Your task to perform on an android device: When is my next appointment? Image 0: 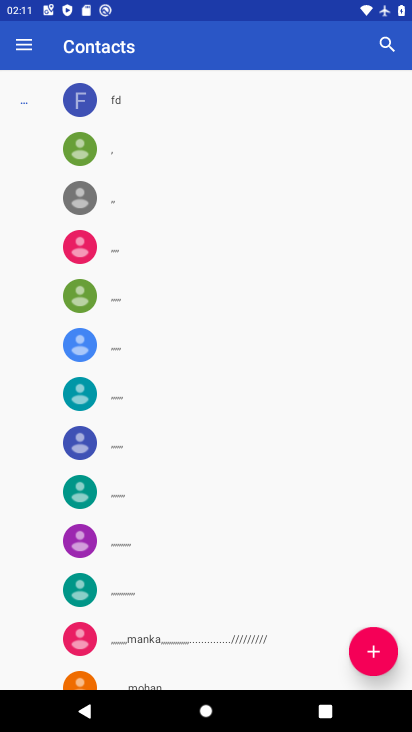
Step 0: press home button
Your task to perform on an android device: When is my next appointment? Image 1: 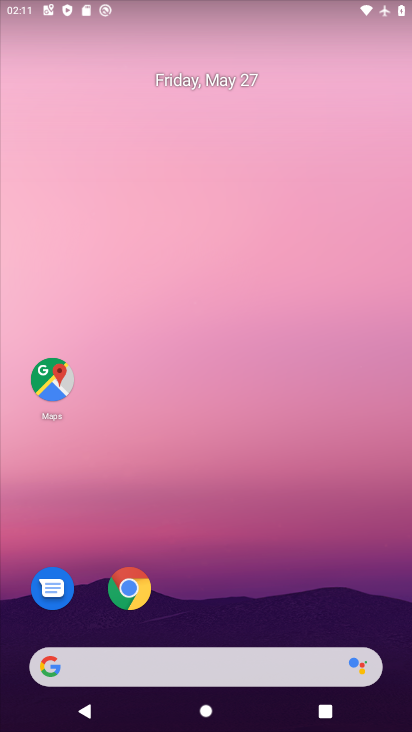
Step 1: drag from (371, 618) to (335, 76)
Your task to perform on an android device: When is my next appointment? Image 2: 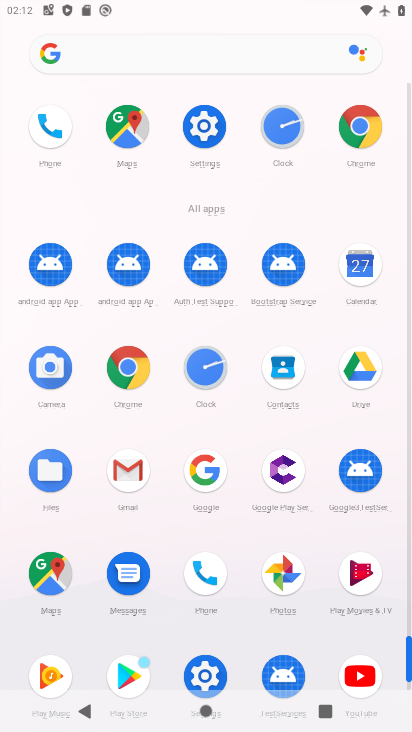
Step 2: click (364, 261)
Your task to perform on an android device: When is my next appointment? Image 3: 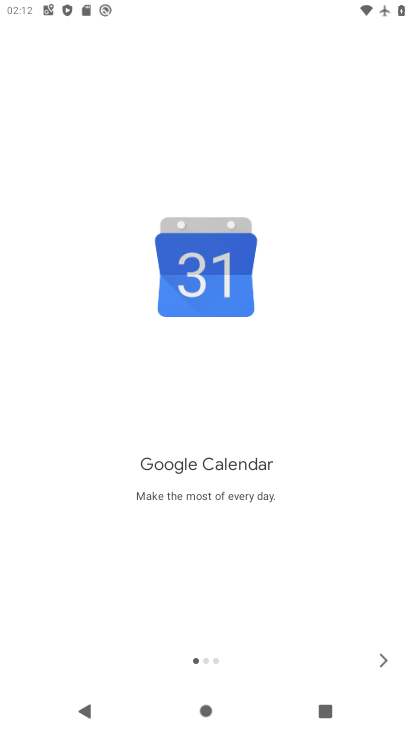
Step 3: click (381, 653)
Your task to perform on an android device: When is my next appointment? Image 4: 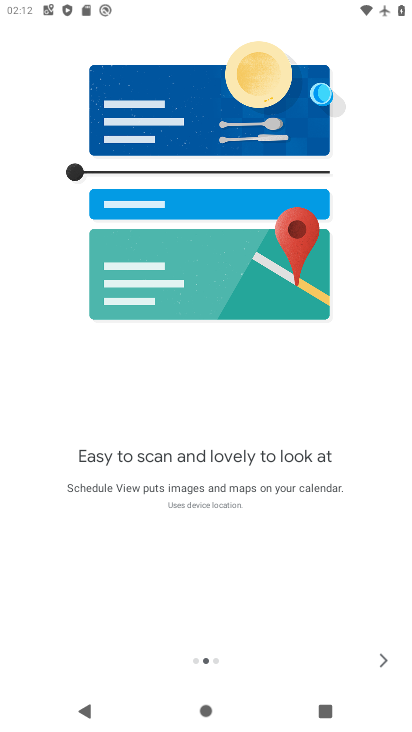
Step 4: click (381, 653)
Your task to perform on an android device: When is my next appointment? Image 5: 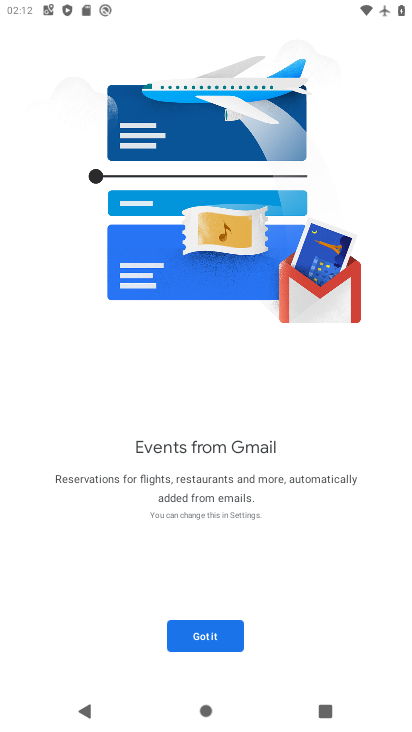
Step 5: click (203, 638)
Your task to perform on an android device: When is my next appointment? Image 6: 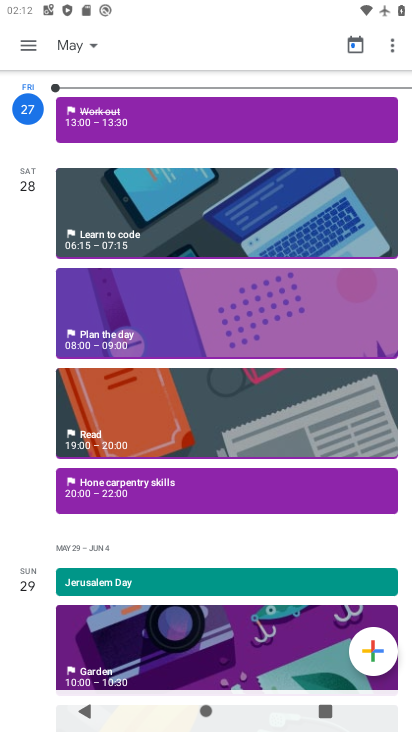
Step 6: click (203, 638)
Your task to perform on an android device: When is my next appointment? Image 7: 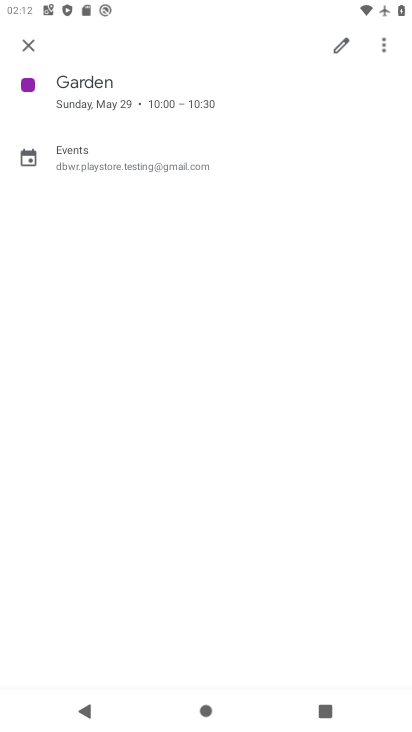
Step 7: click (21, 45)
Your task to perform on an android device: When is my next appointment? Image 8: 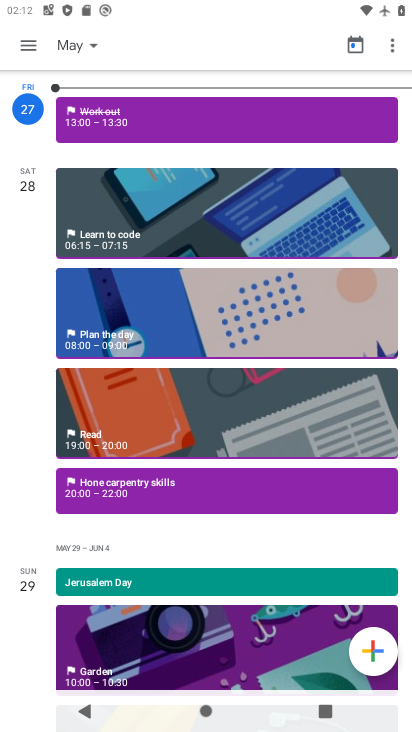
Step 8: task complete